Your task to perform on an android device: Open the phone app and click the voicemail tab. Image 0: 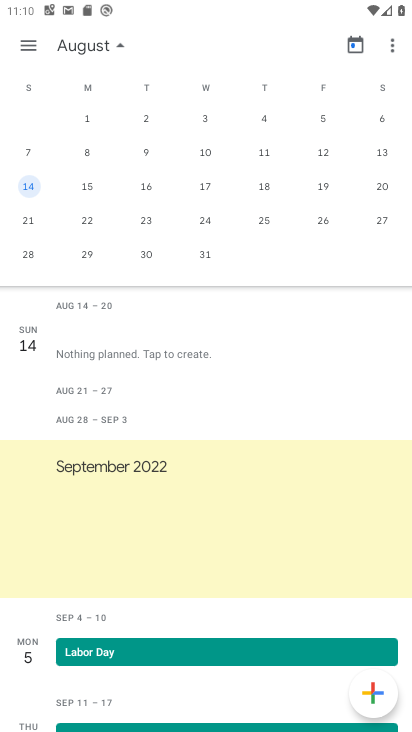
Step 0: press home button
Your task to perform on an android device: Open the phone app and click the voicemail tab. Image 1: 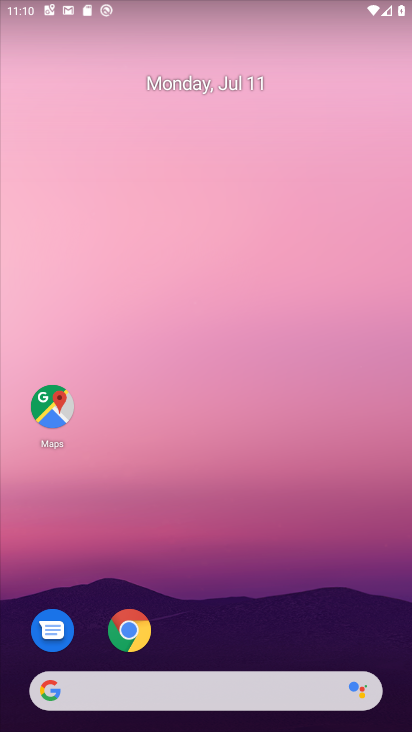
Step 1: drag from (293, 598) to (334, 28)
Your task to perform on an android device: Open the phone app and click the voicemail tab. Image 2: 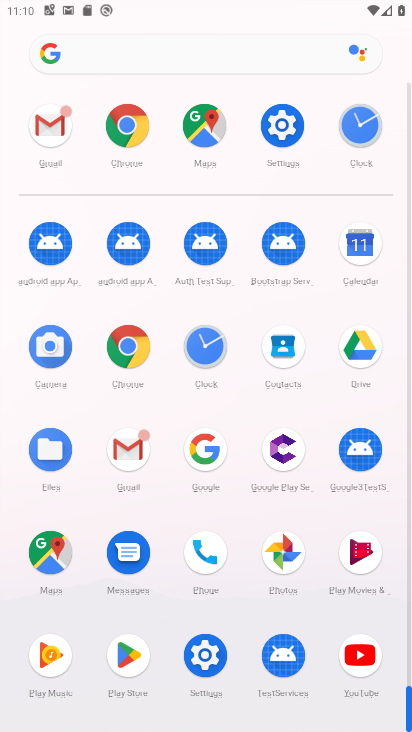
Step 2: click (187, 552)
Your task to perform on an android device: Open the phone app and click the voicemail tab. Image 3: 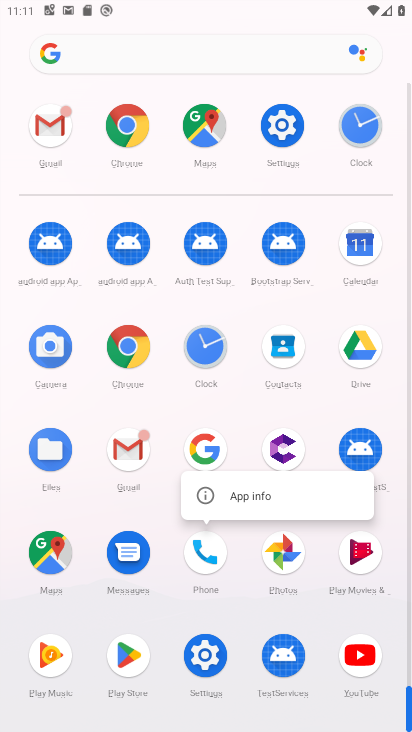
Step 3: click (212, 581)
Your task to perform on an android device: Open the phone app and click the voicemail tab. Image 4: 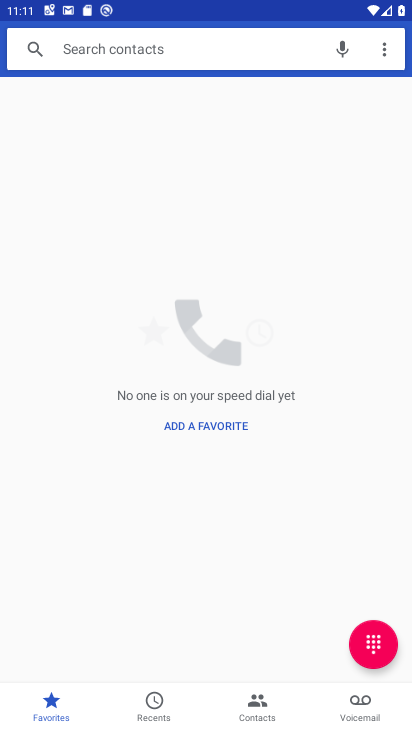
Step 4: click (375, 710)
Your task to perform on an android device: Open the phone app and click the voicemail tab. Image 5: 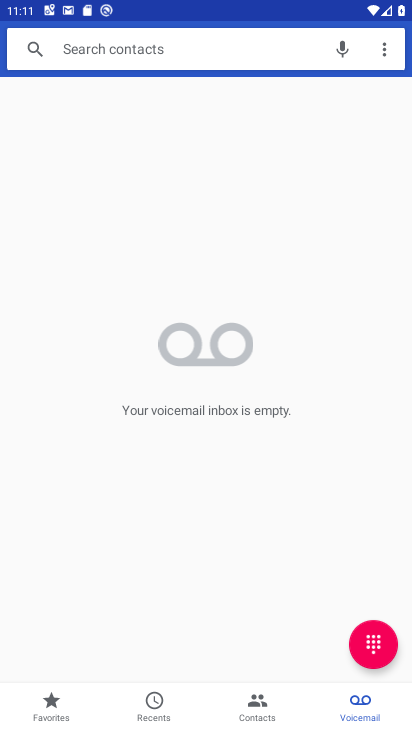
Step 5: task complete